Your task to perform on an android device: Go to eBay Image 0: 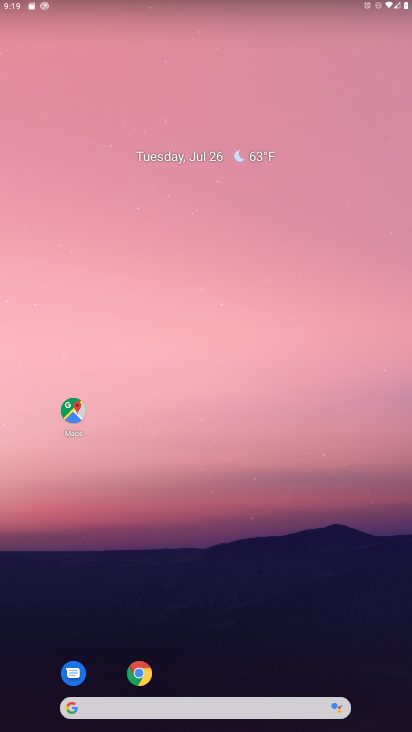
Step 0: drag from (345, 645) to (96, 47)
Your task to perform on an android device: Go to eBay Image 1: 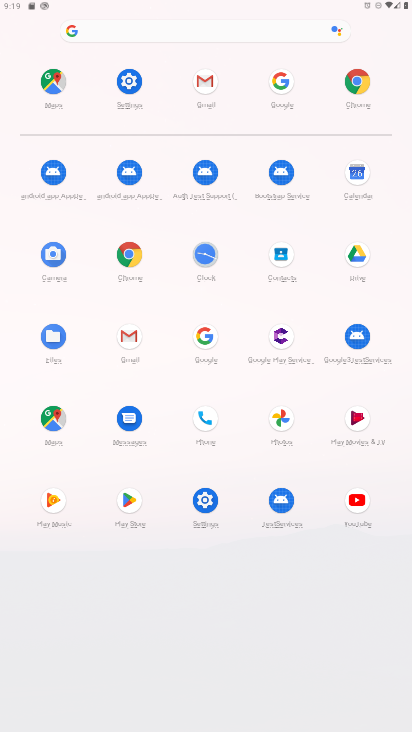
Step 1: click (200, 333)
Your task to perform on an android device: Go to eBay Image 2: 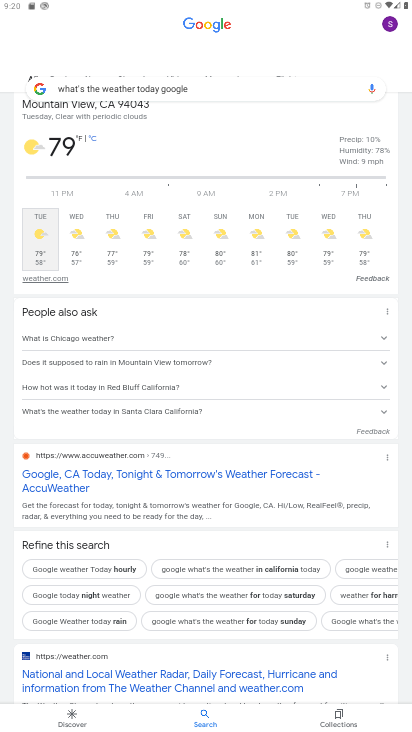
Step 2: press back button
Your task to perform on an android device: Go to eBay Image 3: 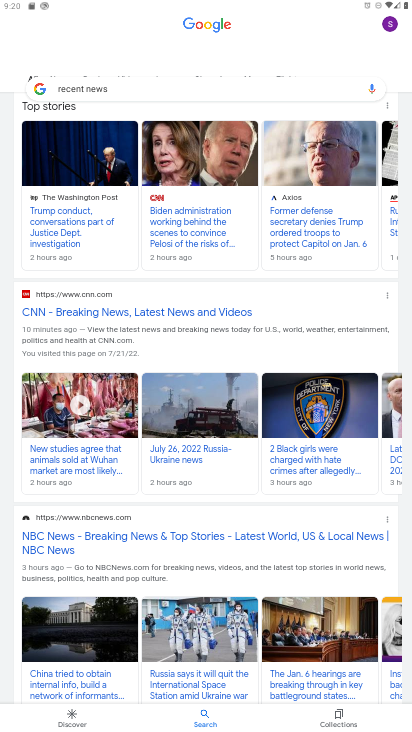
Step 3: click (106, 89)
Your task to perform on an android device: Go to eBay Image 4: 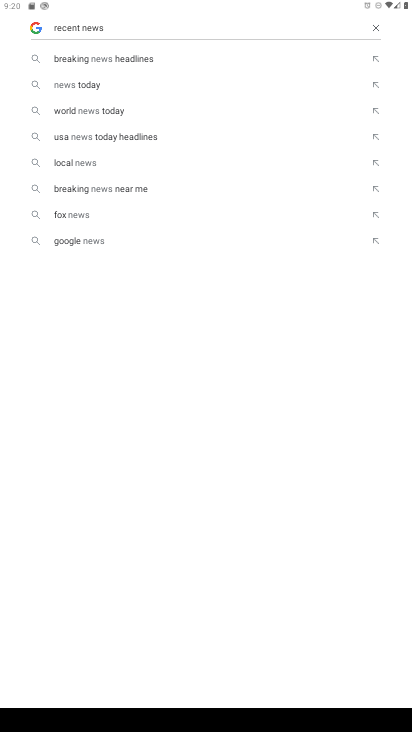
Step 4: click (378, 24)
Your task to perform on an android device: Go to eBay Image 5: 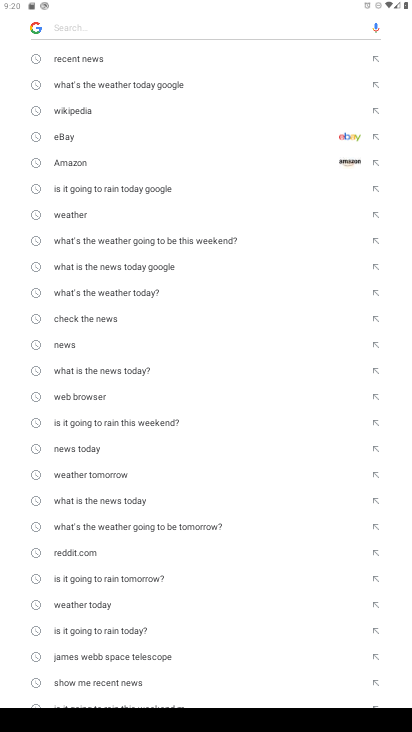
Step 5: click (76, 133)
Your task to perform on an android device: Go to eBay Image 6: 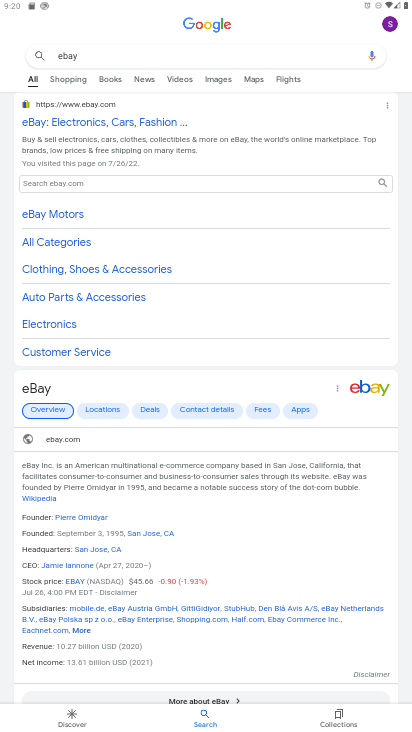
Step 6: task complete